Your task to perform on an android device: turn pop-ups off in chrome Image 0: 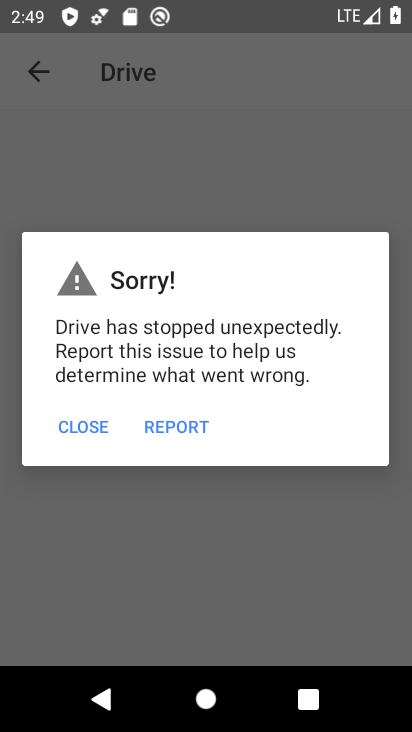
Step 0: press home button
Your task to perform on an android device: turn pop-ups off in chrome Image 1: 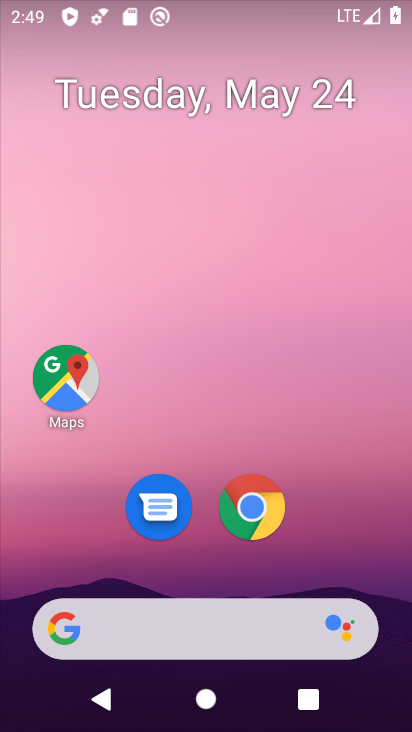
Step 1: click (251, 507)
Your task to perform on an android device: turn pop-ups off in chrome Image 2: 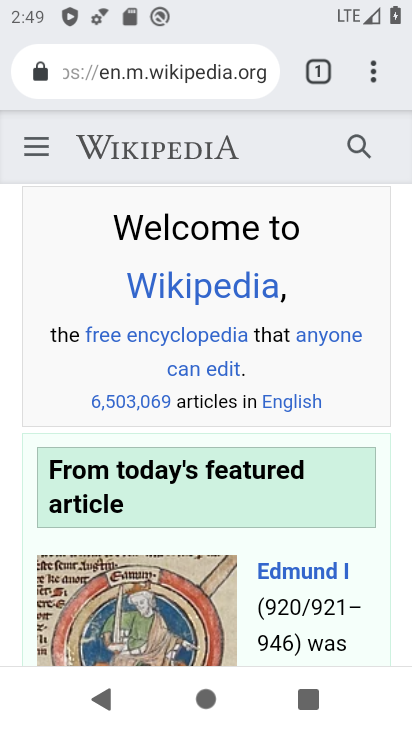
Step 2: drag from (370, 65) to (117, 503)
Your task to perform on an android device: turn pop-ups off in chrome Image 3: 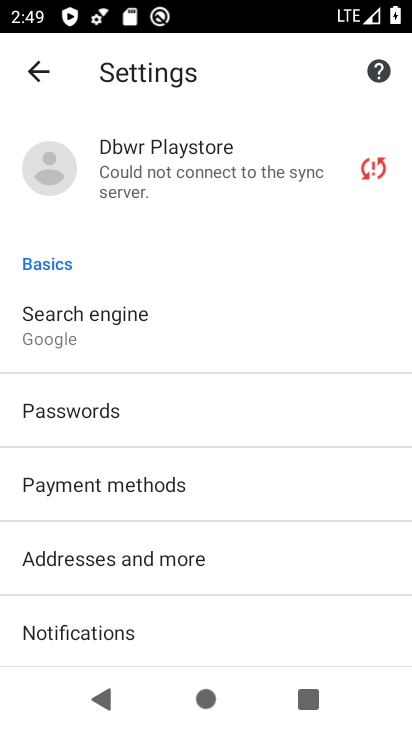
Step 3: drag from (116, 625) to (219, 165)
Your task to perform on an android device: turn pop-ups off in chrome Image 4: 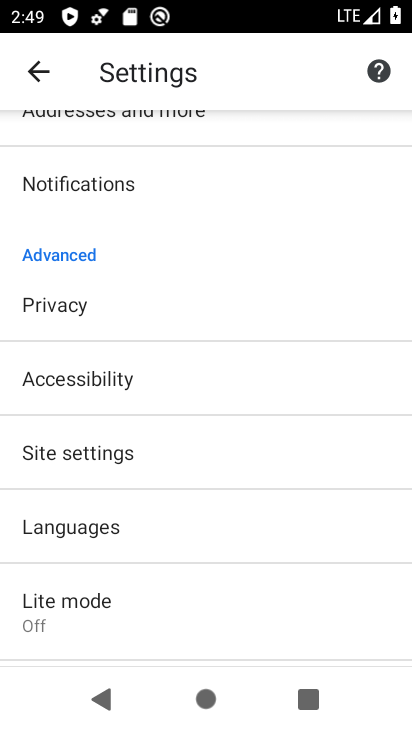
Step 4: click (92, 452)
Your task to perform on an android device: turn pop-ups off in chrome Image 5: 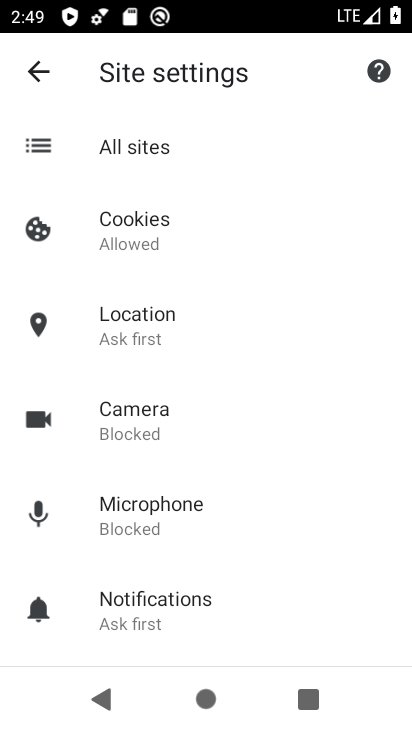
Step 5: drag from (163, 618) to (265, 159)
Your task to perform on an android device: turn pop-ups off in chrome Image 6: 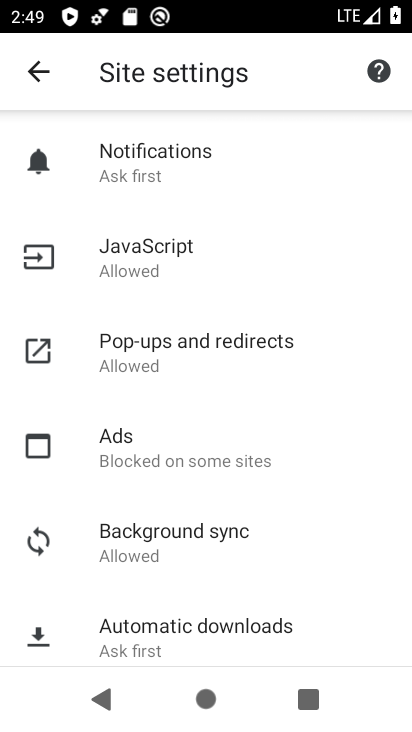
Step 6: click (157, 343)
Your task to perform on an android device: turn pop-ups off in chrome Image 7: 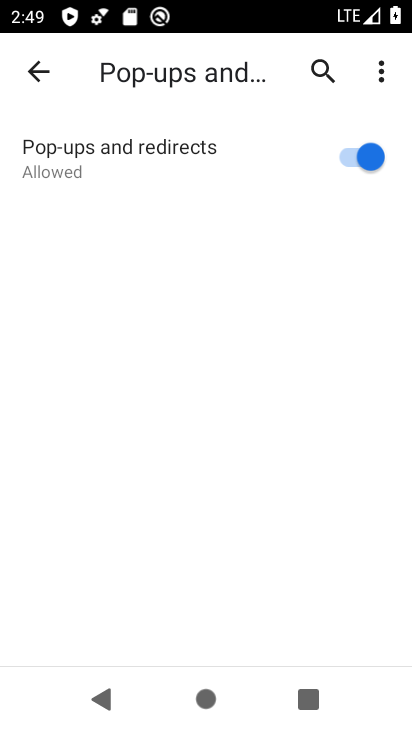
Step 7: click (364, 149)
Your task to perform on an android device: turn pop-ups off in chrome Image 8: 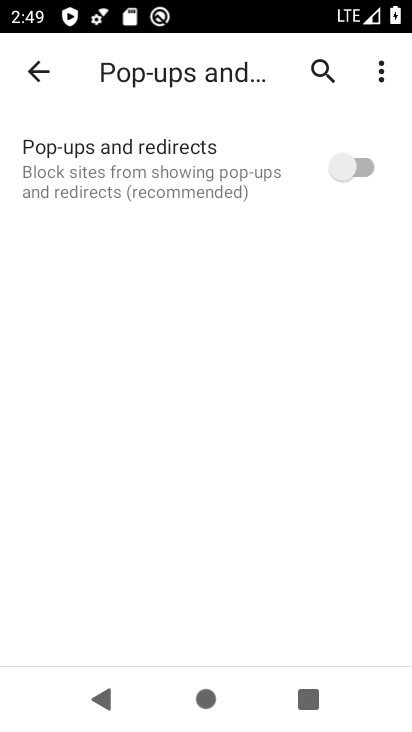
Step 8: task complete